Your task to perform on an android device: change the clock style Image 0: 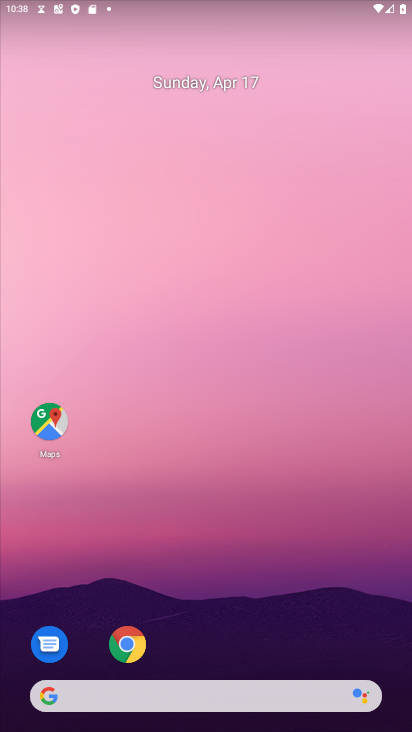
Step 0: drag from (249, 28) to (411, 356)
Your task to perform on an android device: change the clock style Image 1: 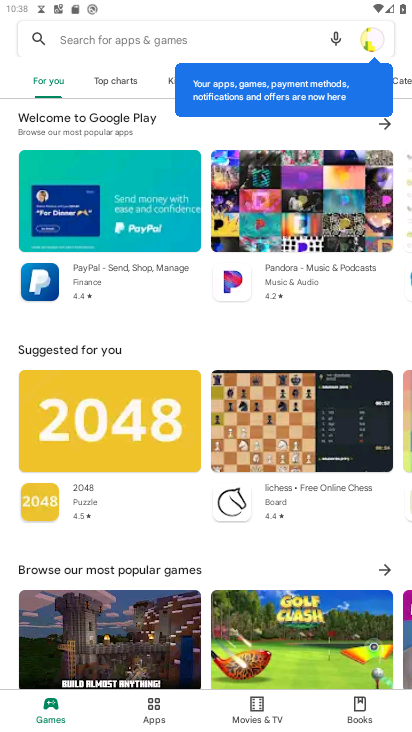
Step 1: press home button
Your task to perform on an android device: change the clock style Image 2: 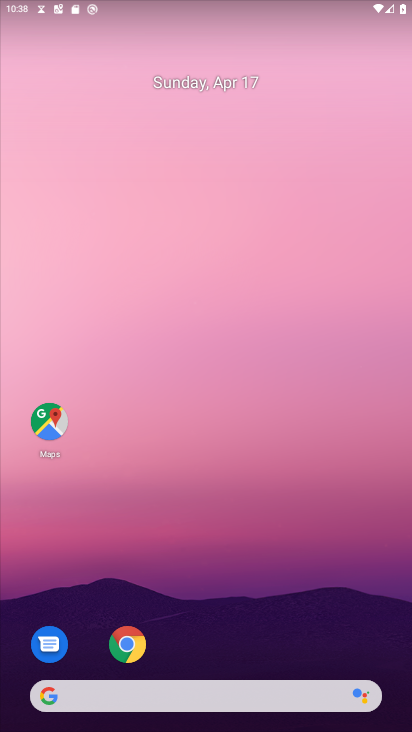
Step 2: drag from (209, 622) to (296, 14)
Your task to perform on an android device: change the clock style Image 3: 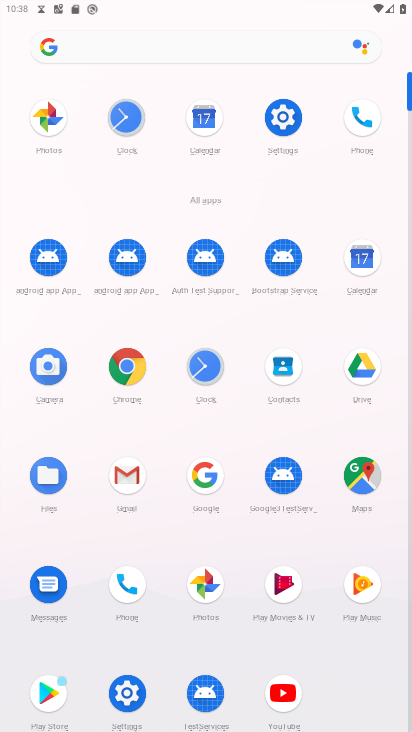
Step 3: click (205, 372)
Your task to perform on an android device: change the clock style Image 4: 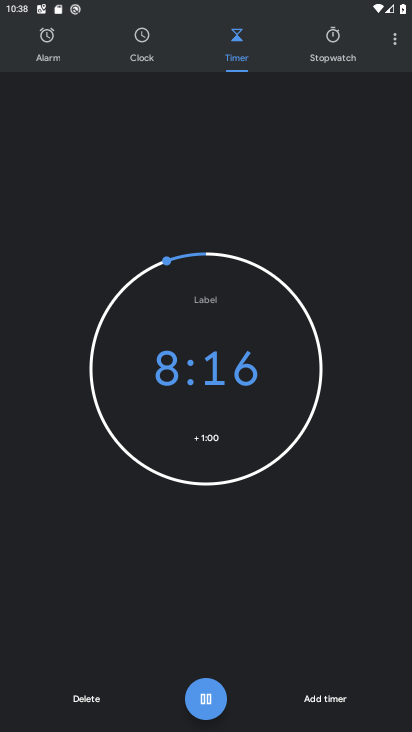
Step 4: click (395, 45)
Your task to perform on an android device: change the clock style Image 5: 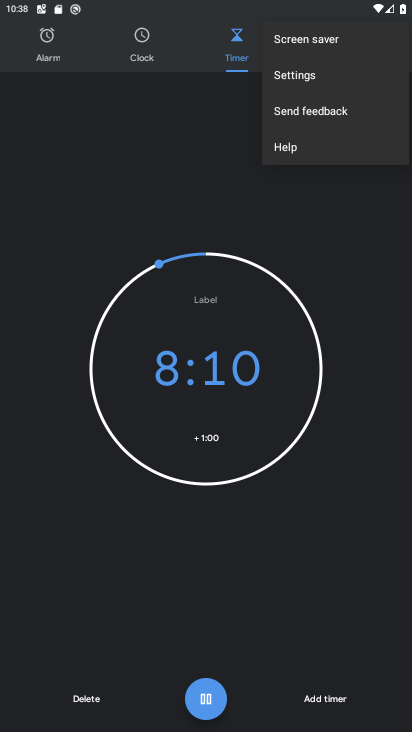
Step 5: click (395, 42)
Your task to perform on an android device: change the clock style Image 6: 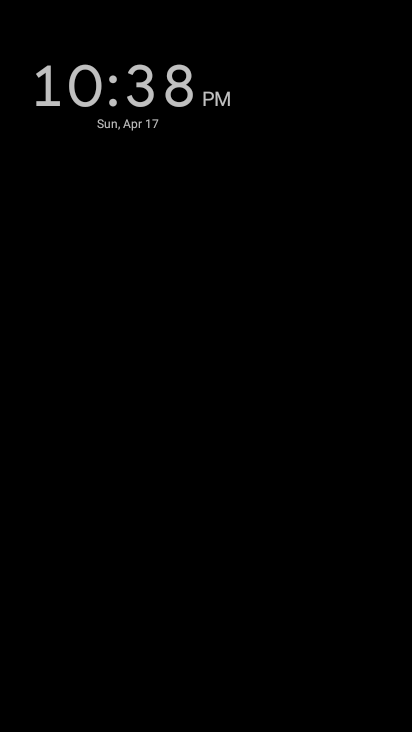
Step 6: press back button
Your task to perform on an android device: change the clock style Image 7: 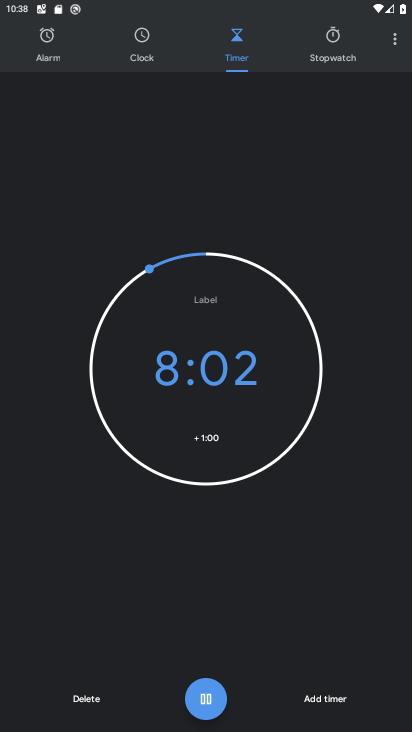
Step 7: click (393, 38)
Your task to perform on an android device: change the clock style Image 8: 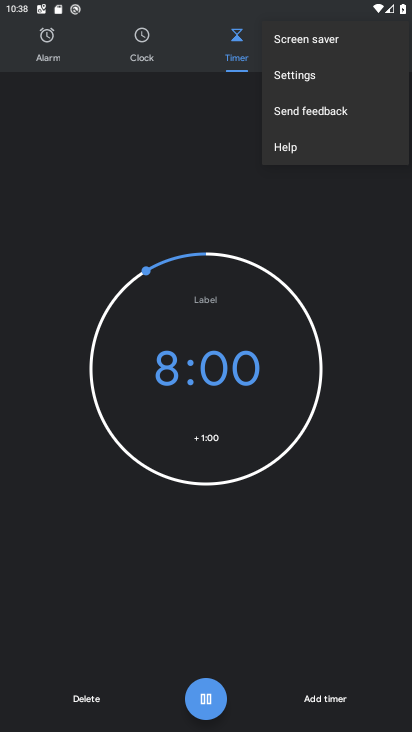
Step 8: click (283, 72)
Your task to perform on an android device: change the clock style Image 9: 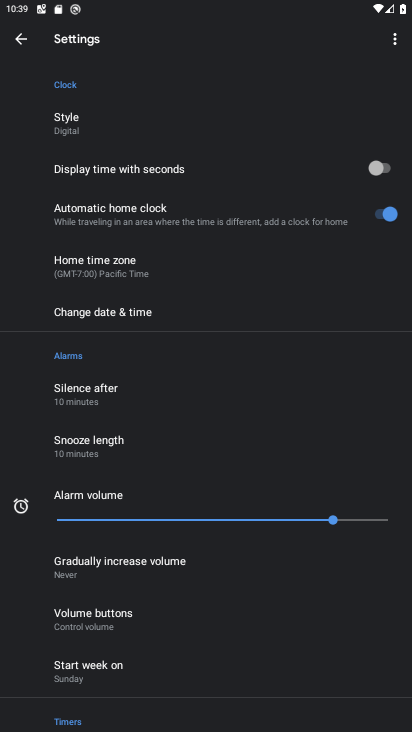
Step 9: click (73, 121)
Your task to perform on an android device: change the clock style Image 10: 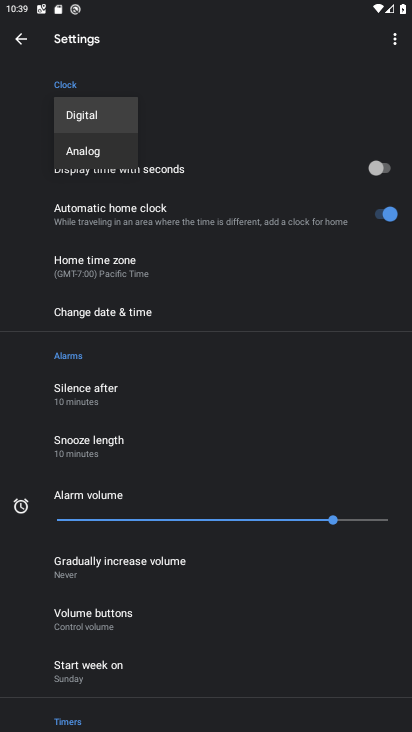
Step 10: click (84, 153)
Your task to perform on an android device: change the clock style Image 11: 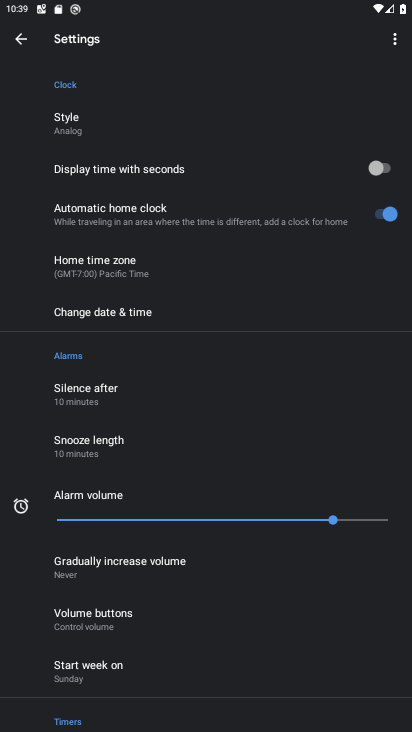
Step 11: task complete